Your task to perform on an android device: turn off location Image 0: 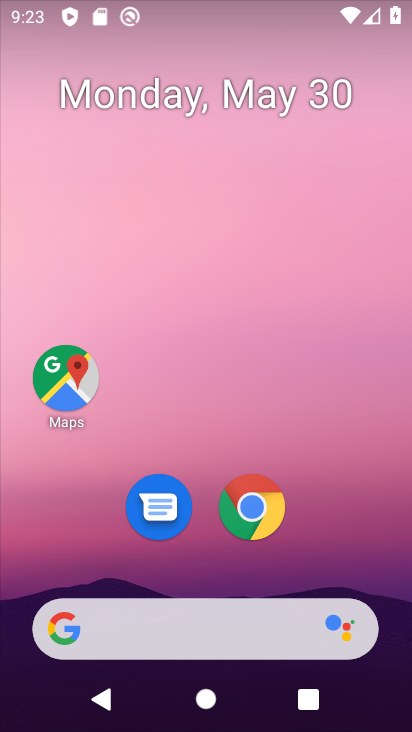
Step 0: drag from (216, 601) to (255, 253)
Your task to perform on an android device: turn off location Image 1: 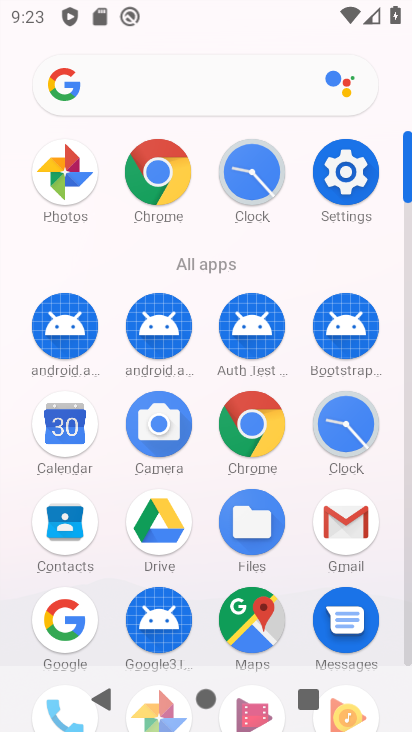
Step 1: click (339, 177)
Your task to perform on an android device: turn off location Image 2: 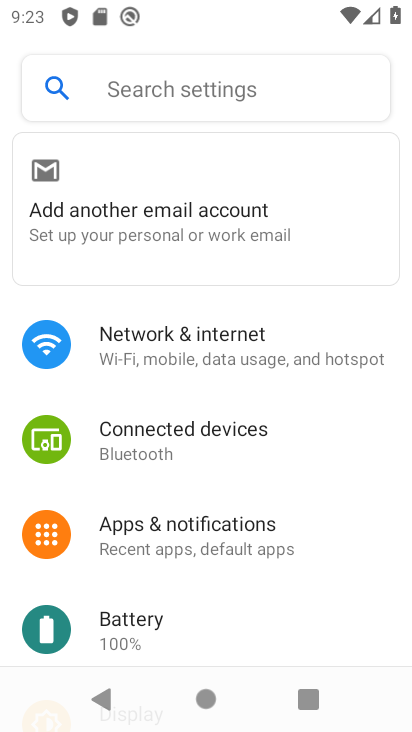
Step 2: drag from (182, 622) to (246, 267)
Your task to perform on an android device: turn off location Image 3: 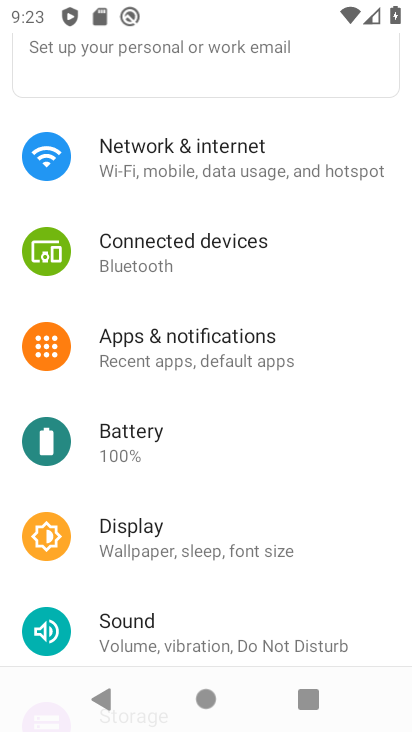
Step 3: drag from (195, 623) to (239, 368)
Your task to perform on an android device: turn off location Image 4: 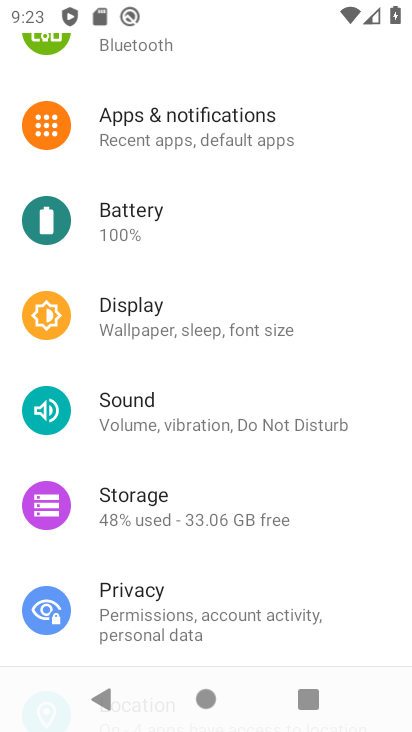
Step 4: drag from (191, 462) to (221, 338)
Your task to perform on an android device: turn off location Image 5: 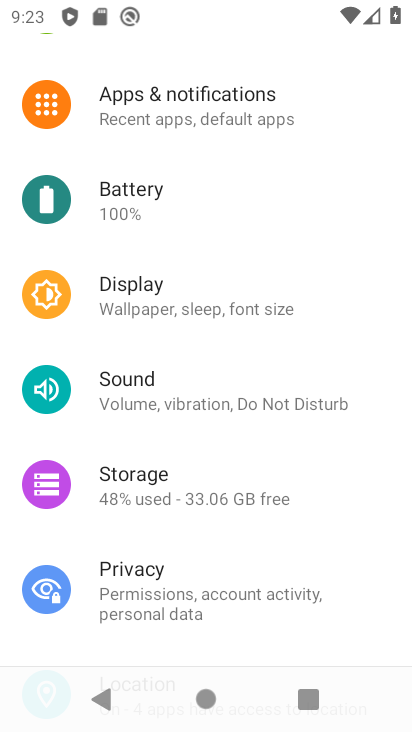
Step 5: drag from (164, 632) to (244, 294)
Your task to perform on an android device: turn off location Image 6: 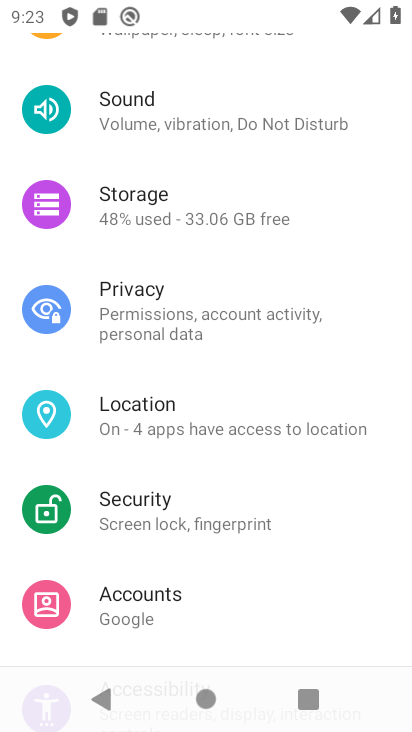
Step 6: click (129, 414)
Your task to perform on an android device: turn off location Image 7: 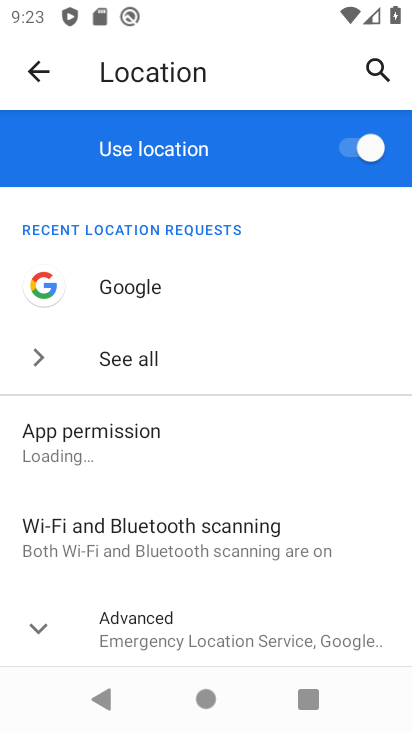
Step 7: click (349, 145)
Your task to perform on an android device: turn off location Image 8: 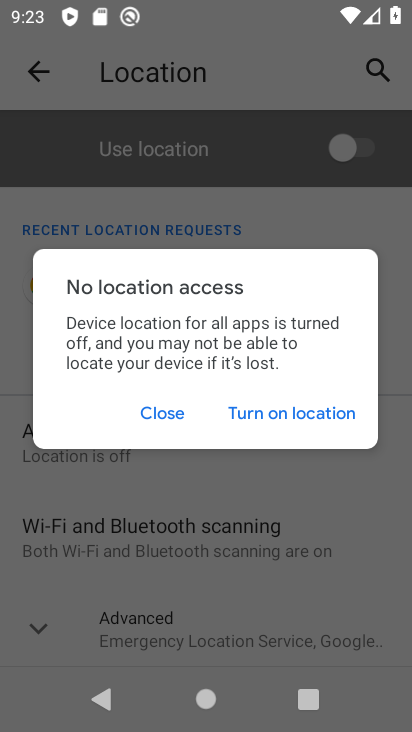
Step 8: click (181, 414)
Your task to perform on an android device: turn off location Image 9: 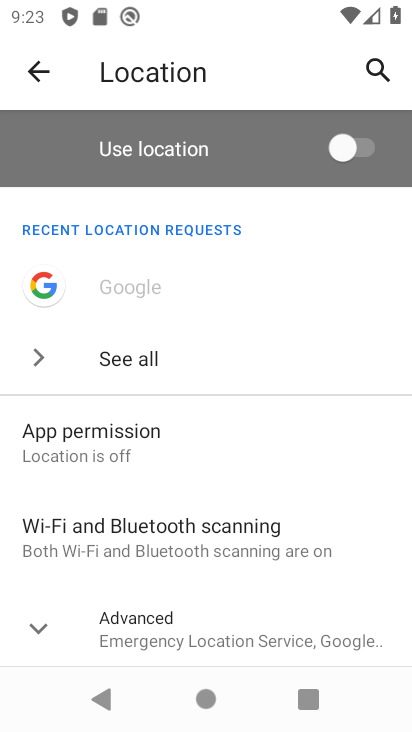
Step 9: task complete